Your task to perform on an android device: Open Android settings Image 0: 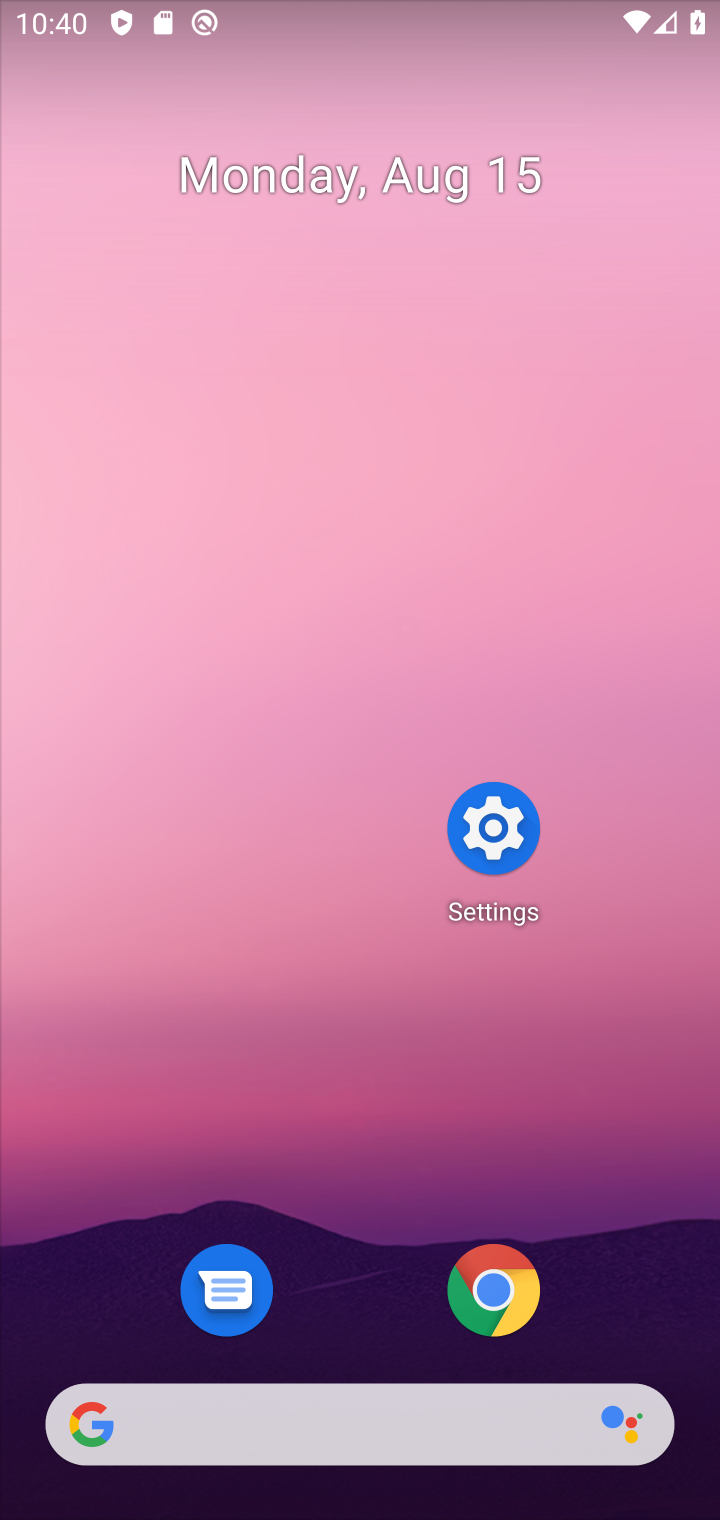
Step 0: click (525, 831)
Your task to perform on an android device: Open Android settings Image 1: 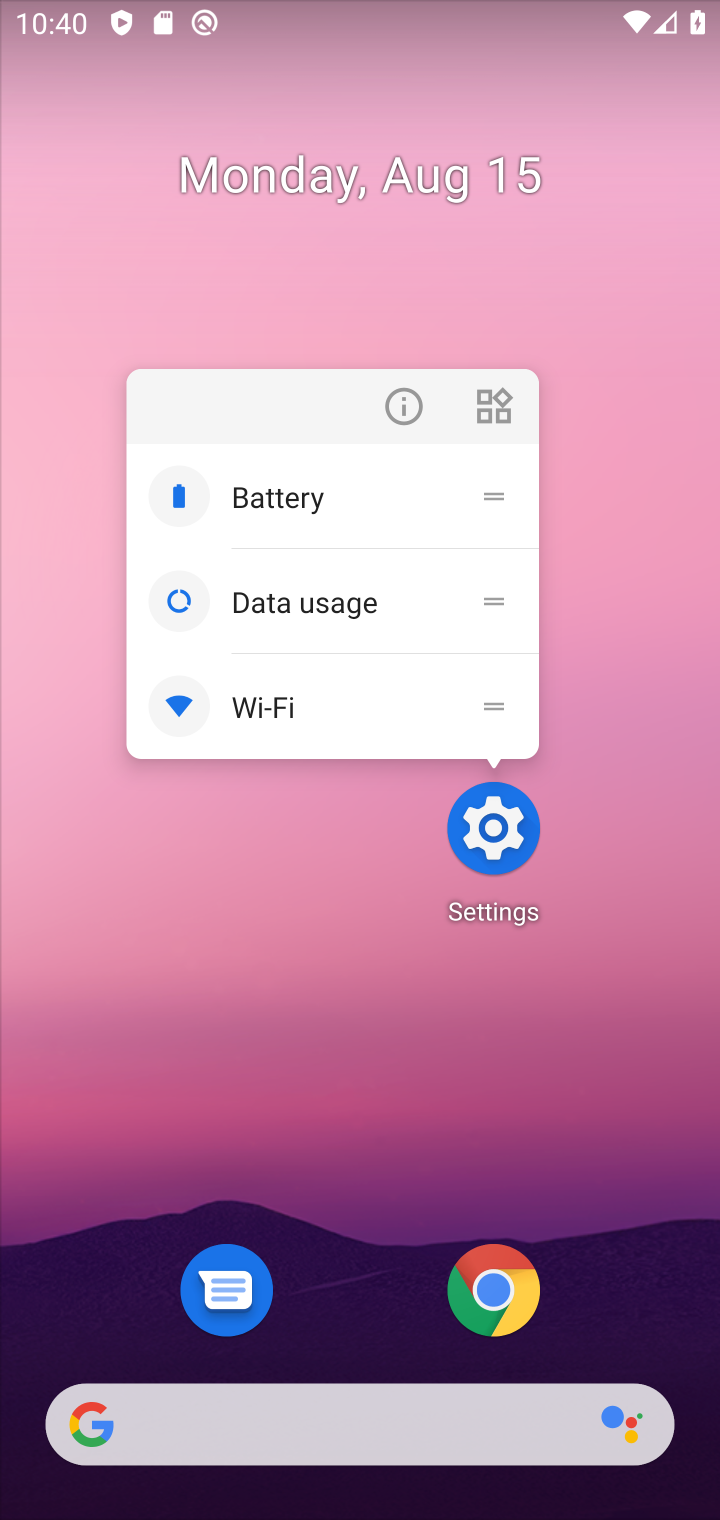
Step 1: click (473, 836)
Your task to perform on an android device: Open Android settings Image 2: 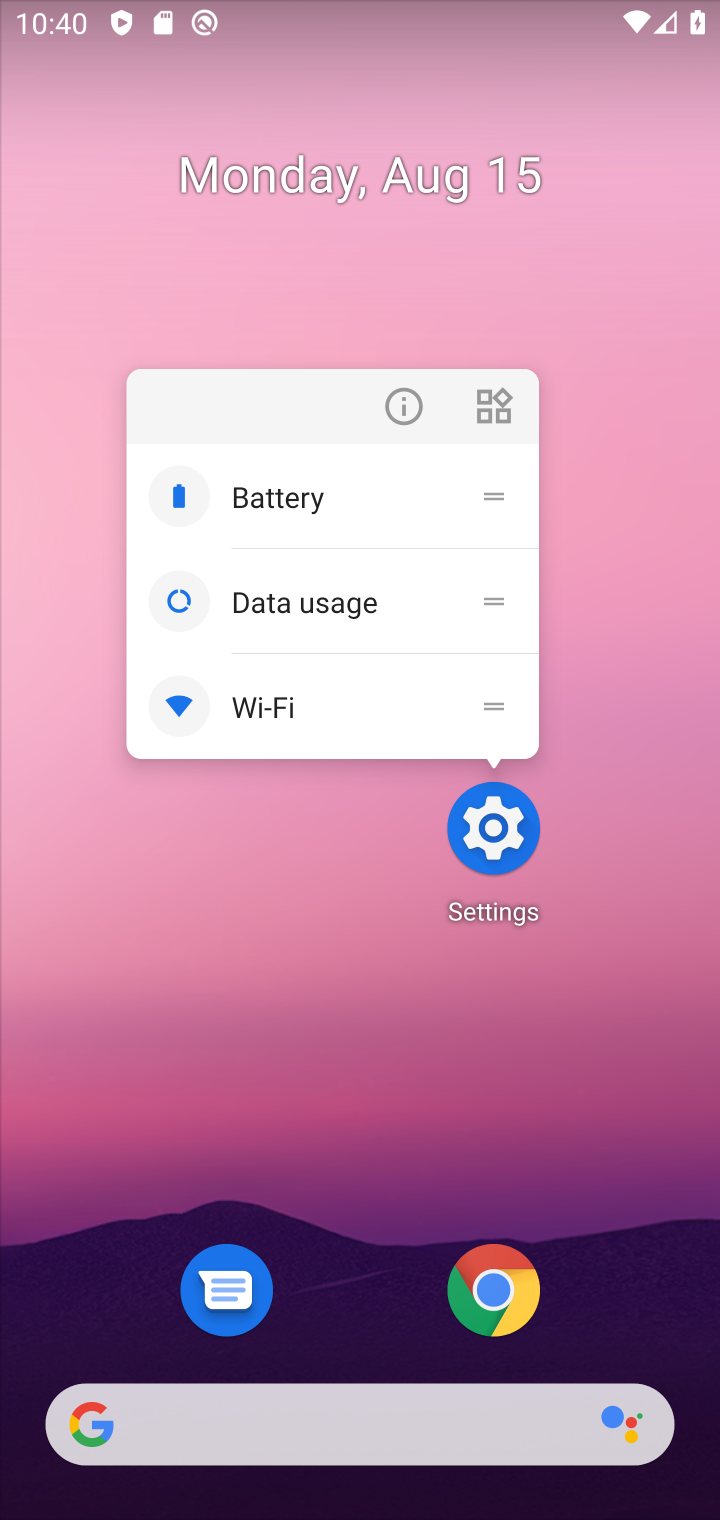
Step 2: click (473, 849)
Your task to perform on an android device: Open Android settings Image 3: 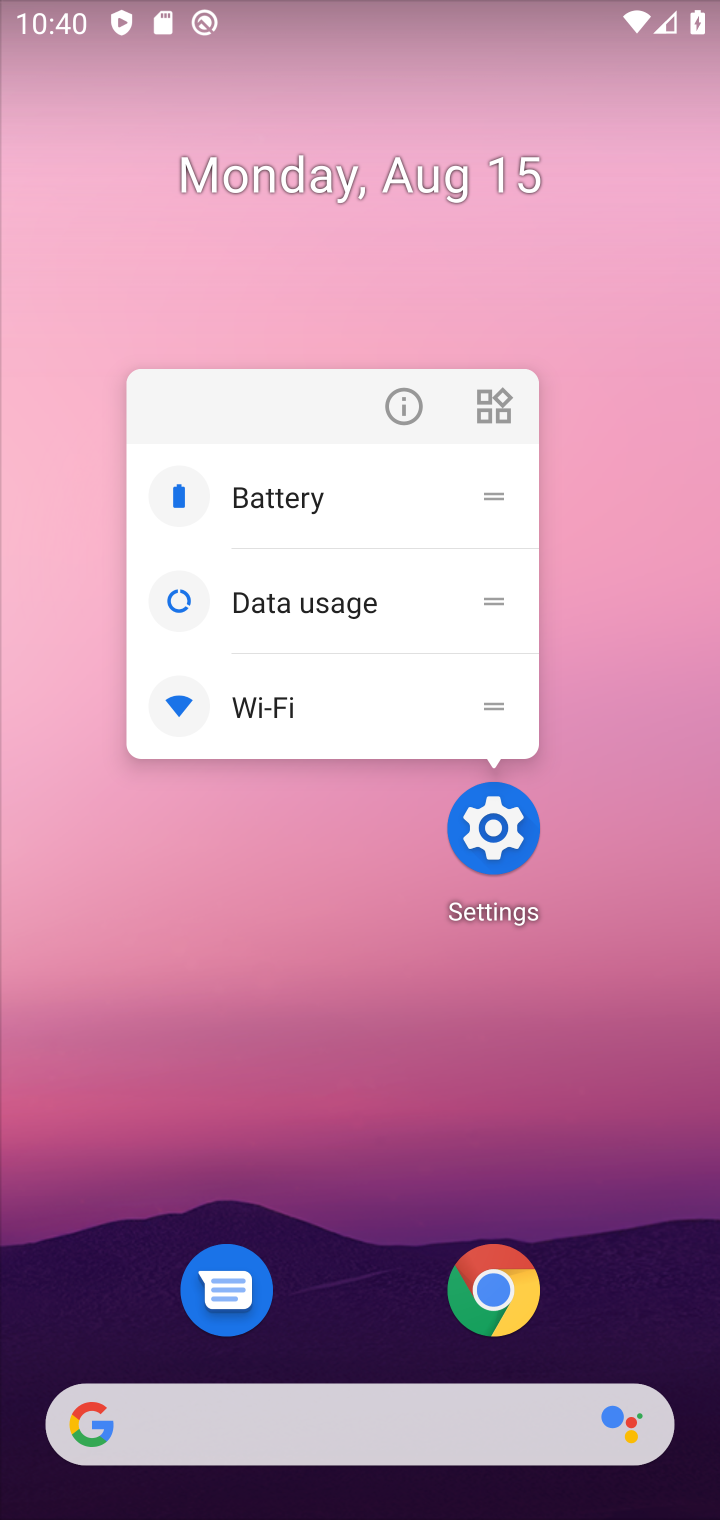
Step 3: click (488, 834)
Your task to perform on an android device: Open Android settings Image 4: 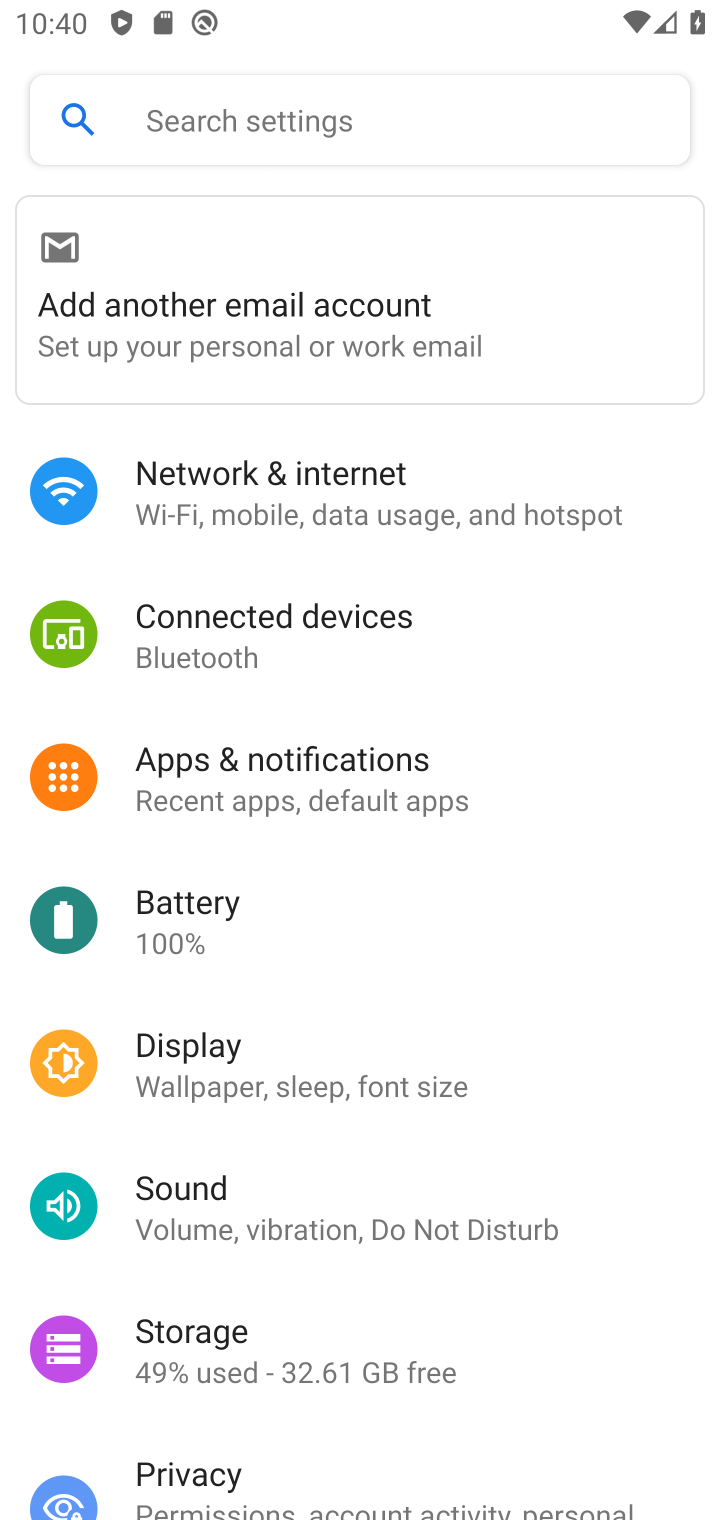
Step 4: task complete